Your task to perform on an android device: open app "Google Chrome" Image 0: 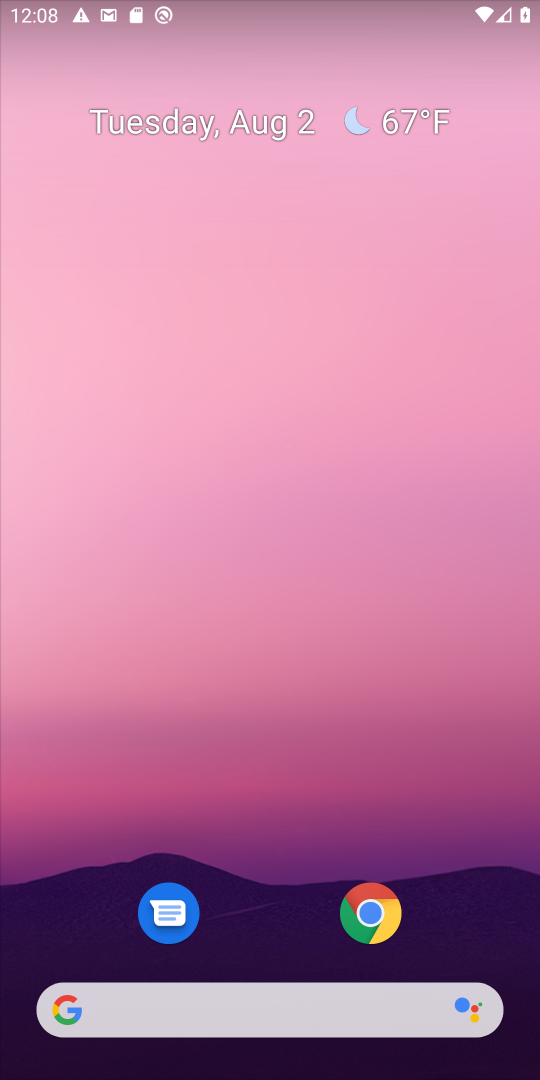
Step 0: click (366, 912)
Your task to perform on an android device: open app "Google Chrome" Image 1: 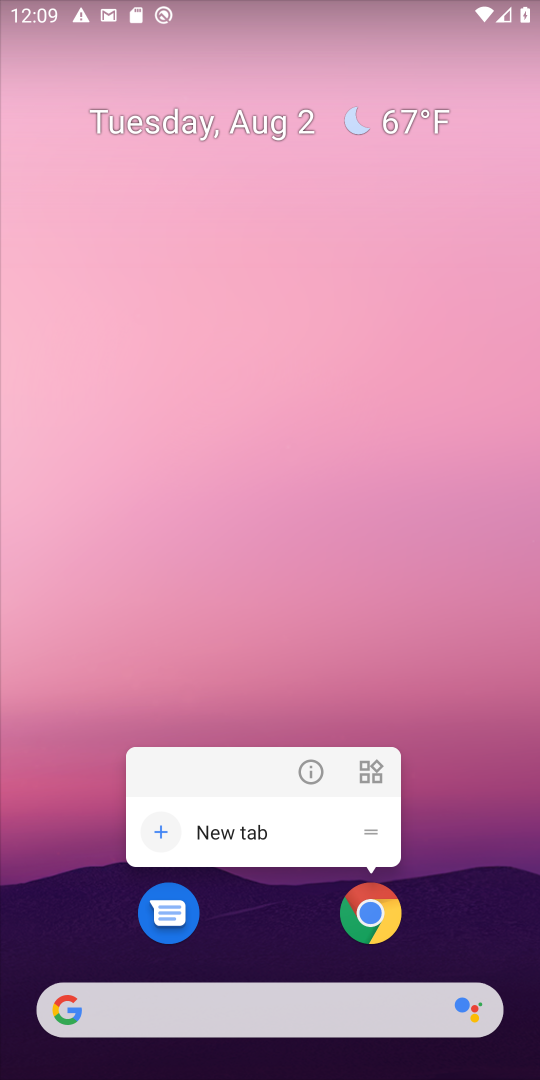
Step 1: click (366, 908)
Your task to perform on an android device: open app "Google Chrome" Image 2: 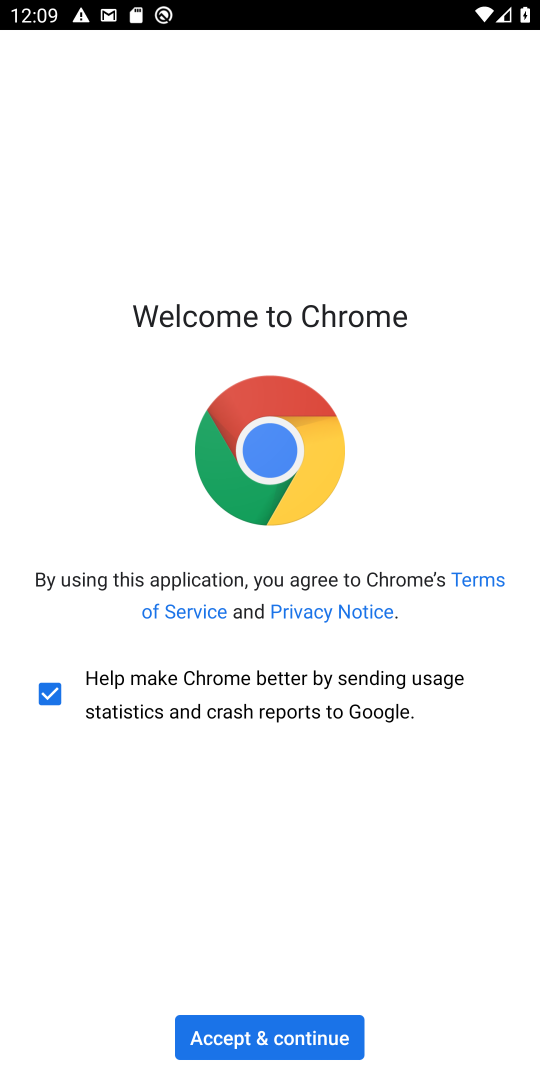
Step 2: click (331, 1023)
Your task to perform on an android device: open app "Google Chrome" Image 3: 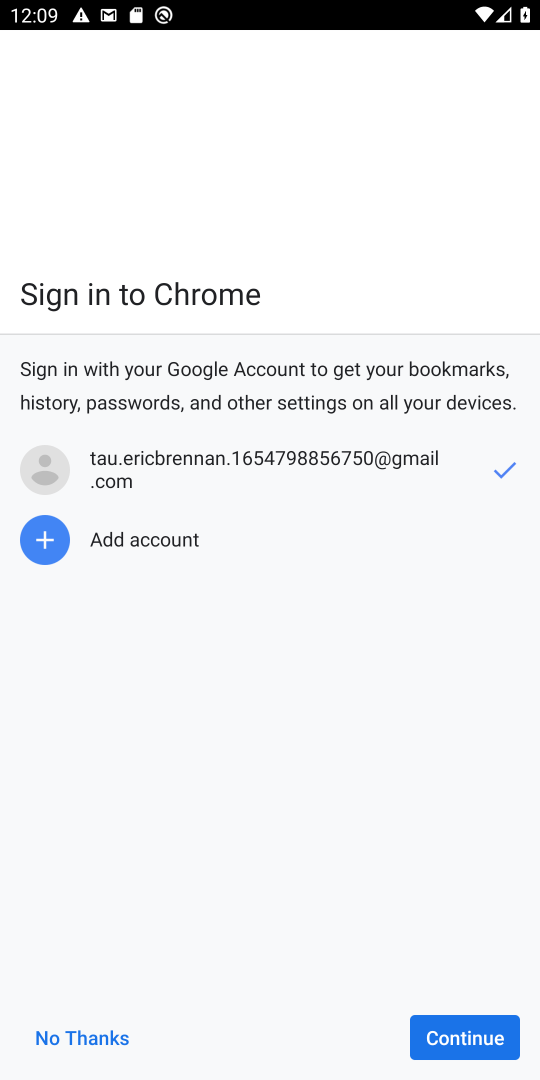
Step 3: click (455, 1026)
Your task to perform on an android device: open app "Google Chrome" Image 4: 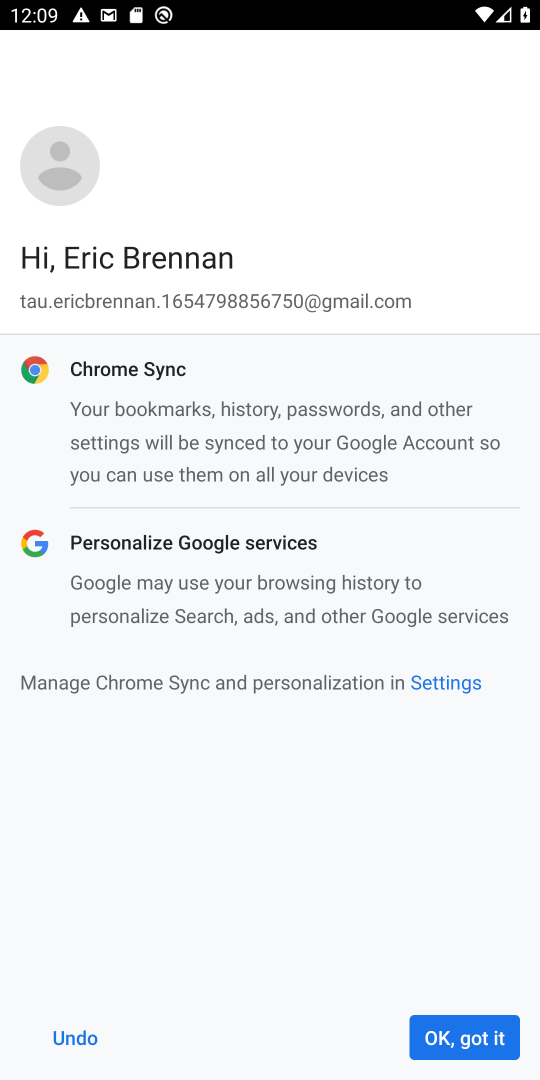
Step 4: click (455, 1026)
Your task to perform on an android device: open app "Google Chrome" Image 5: 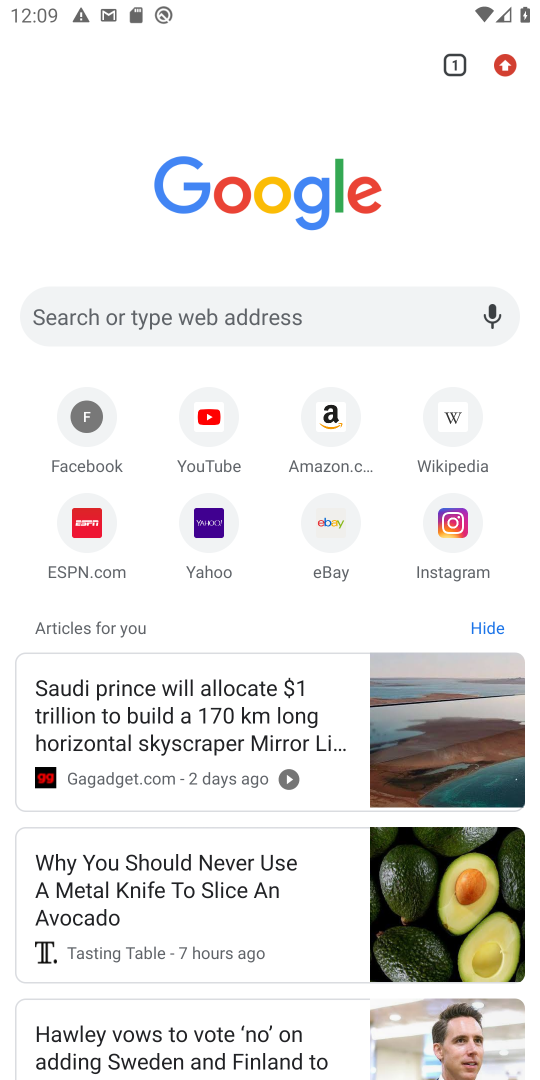
Step 5: task complete